Your task to perform on an android device: Open the web browser Image 0: 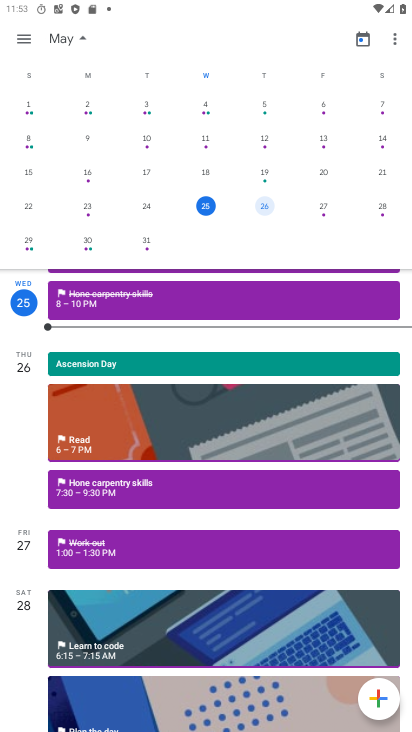
Step 0: press home button
Your task to perform on an android device: Open the web browser Image 1: 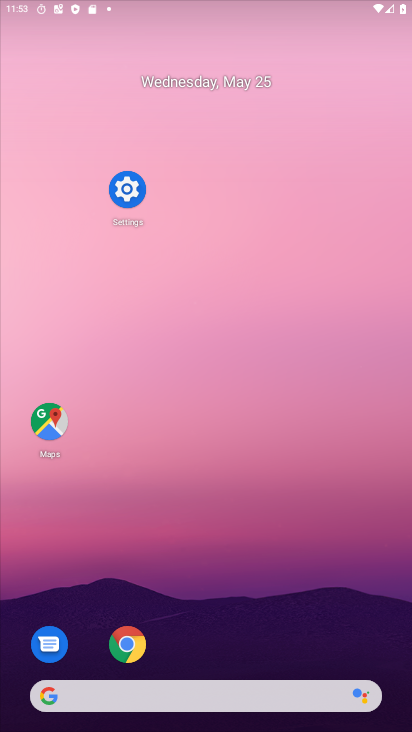
Step 1: drag from (218, 629) to (248, 96)
Your task to perform on an android device: Open the web browser Image 2: 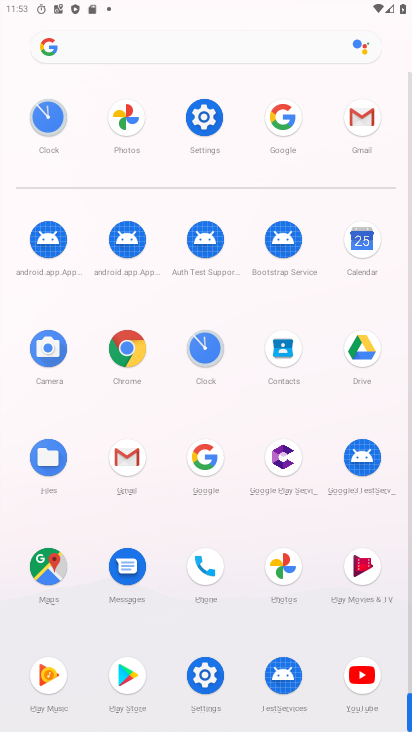
Step 2: click (205, 460)
Your task to perform on an android device: Open the web browser Image 3: 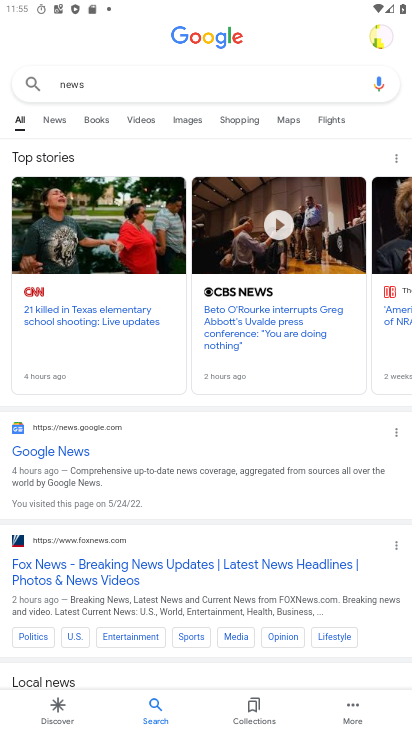
Step 3: task complete